Your task to perform on an android device: turn on data saver in the chrome app Image 0: 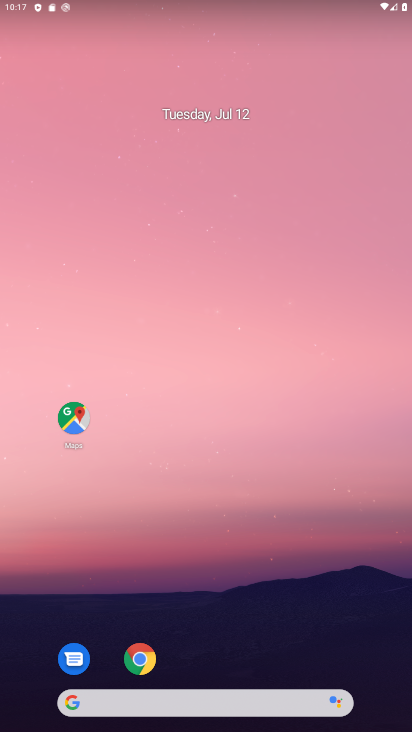
Step 0: click (146, 662)
Your task to perform on an android device: turn on data saver in the chrome app Image 1: 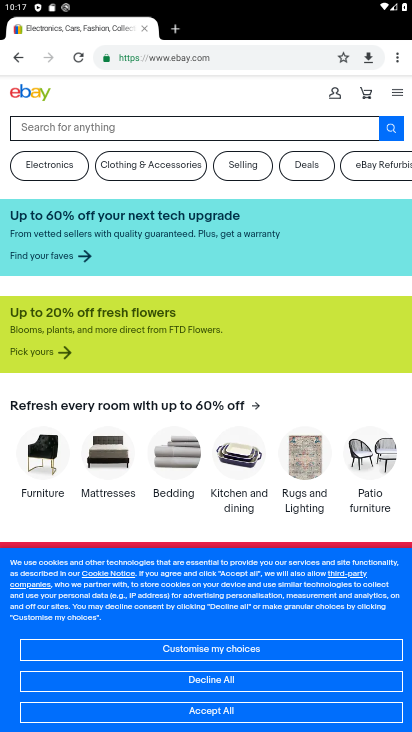
Step 1: click (396, 61)
Your task to perform on an android device: turn on data saver in the chrome app Image 2: 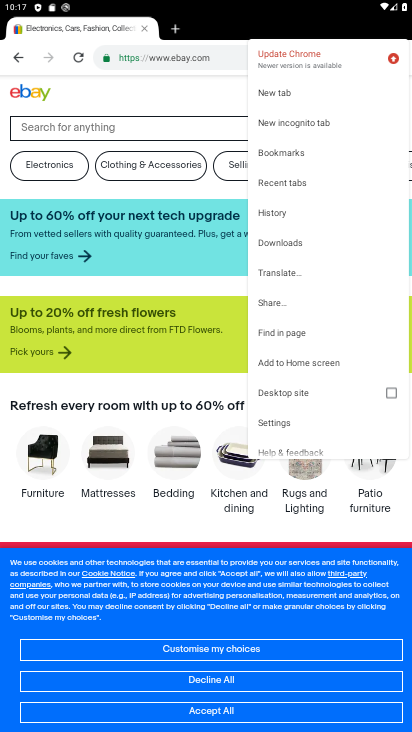
Step 2: click (286, 417)
Your task to perform on an android device: turn on data saver in the chrome app Image 3: 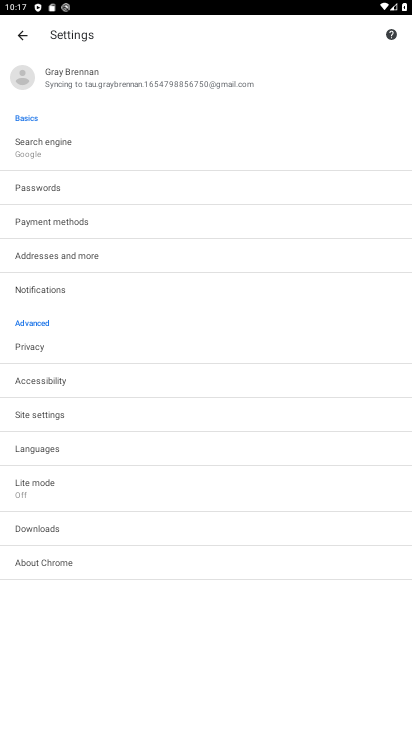
Step 3: click (47, 488)
Your task to perform on an android device: turn on data saver in the chrome app Image 4: 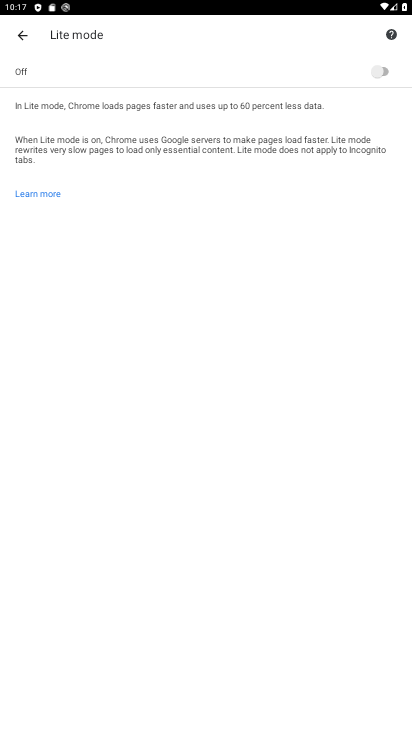
Step 4: click (386, 67)
Your task to perform on an android device: turn on data saver in the chrome app Image 5: 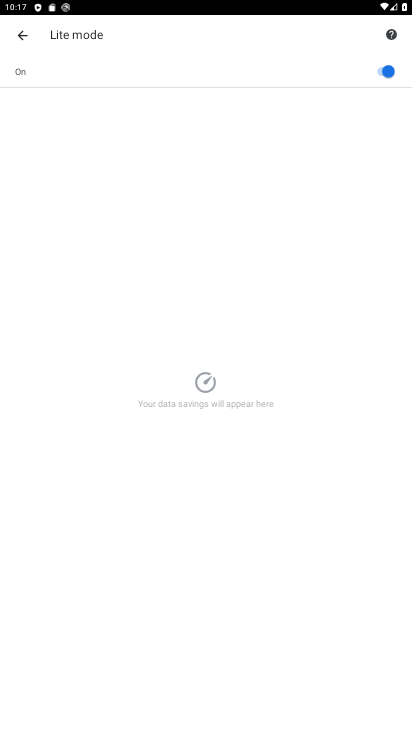
Step 5: task complete